Your task to perform on an android device: turn on bluetooth scan Image 0: 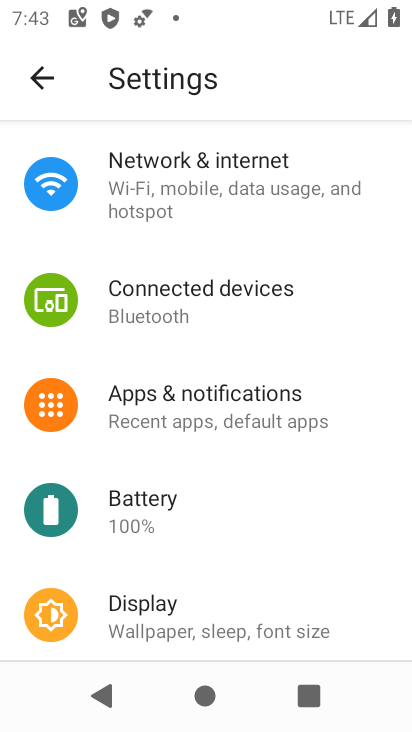
Step 0: press home button
Your task to perform on an android device: turn on bluetooth scan Image 1: 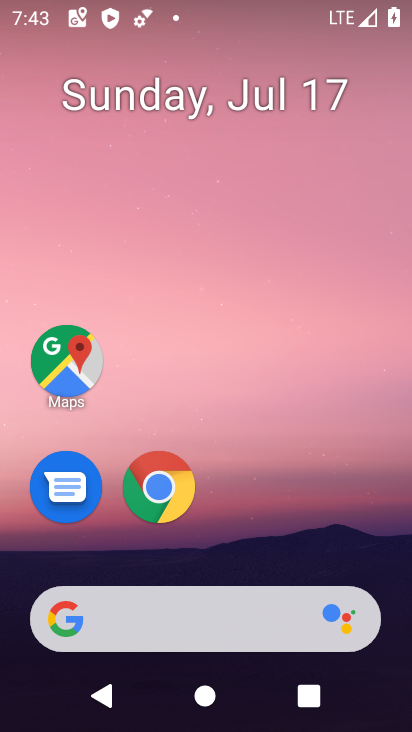
Step 1: drag from (342, 529) to (366, 72)
Your task to perform on an android device: turn on bluetooth scan Image 2: 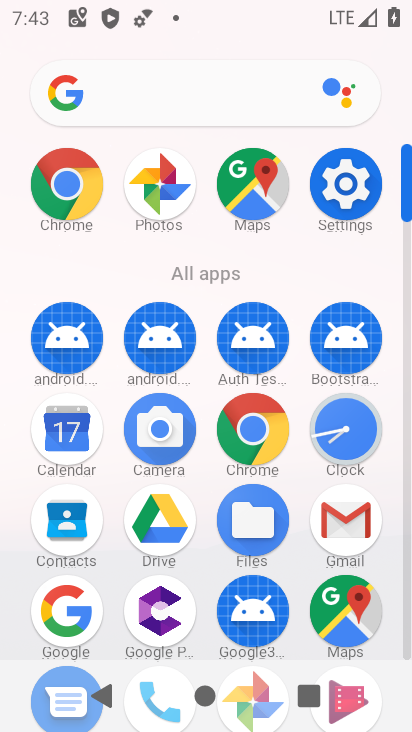
Step 2: click (341, 184)
Your task to perform on an android device: turn on bluetooth scan Image 3: 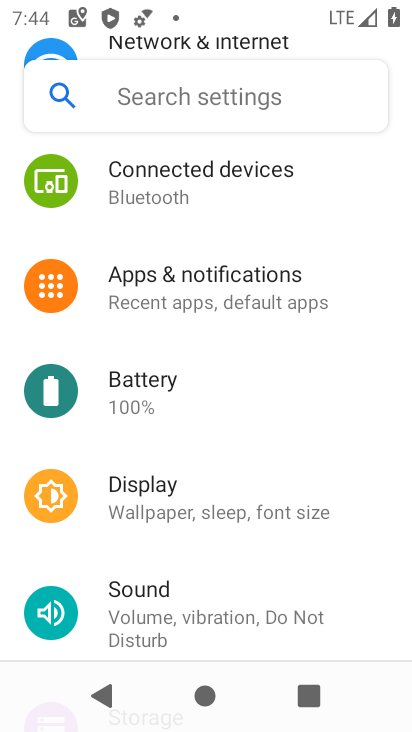
Step 3: drag from (341, 184) to (356, 304)
Your task to perform on an android device: turn on bluetooth scan Image 4: 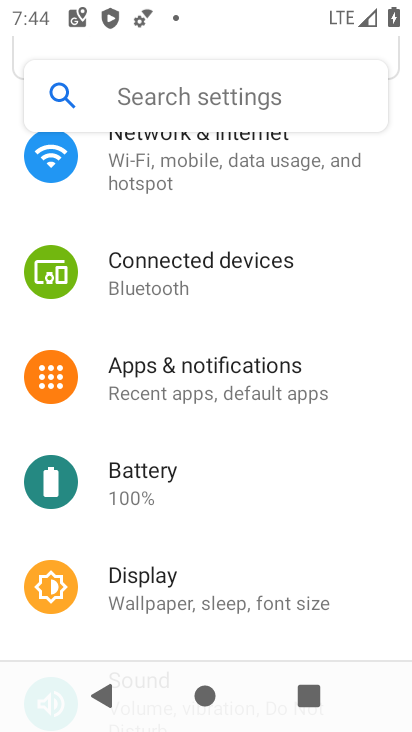
Step 4: drag from (364, 225) to (363, 307)
Your task to perform on an android device: turn on bluetooth scan Image 5: 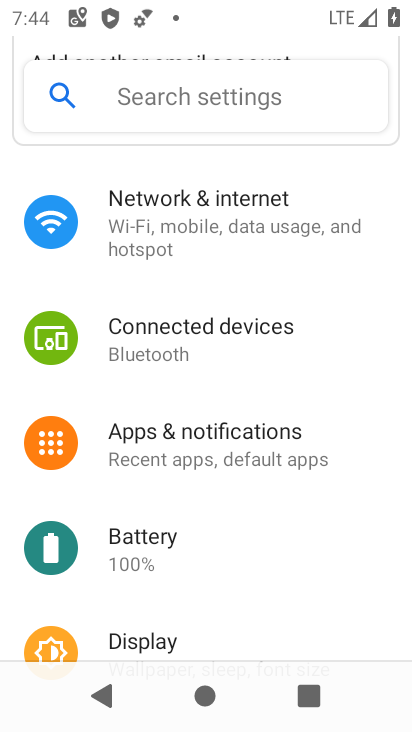
Step 5: drag from (346, 439) to (357, 336)
Your task to perform on an android device: turn on bluetooth scan Image 6: 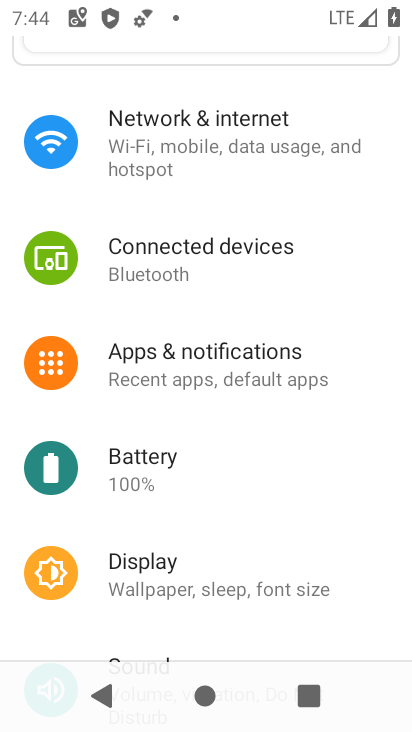
Step 6: drag from (335, 458) to (356, 357)
Your task to perform on an android device: turn on bluetooth scan Image 7: 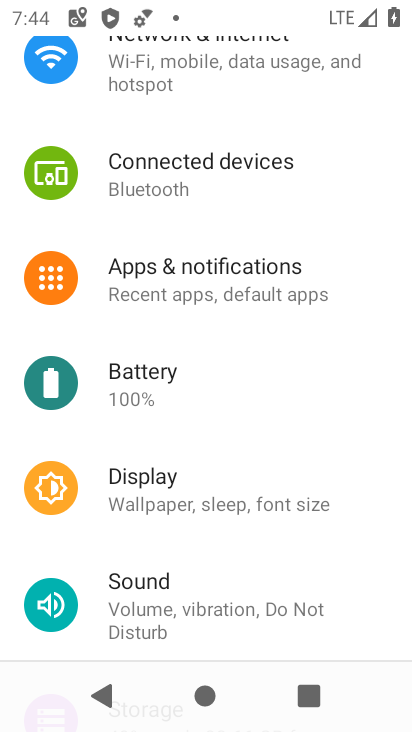
Step 7: drag from (338, 538) to (360, 431)
Your task to perform on an android device: turn on bluetooth scan Image 8: 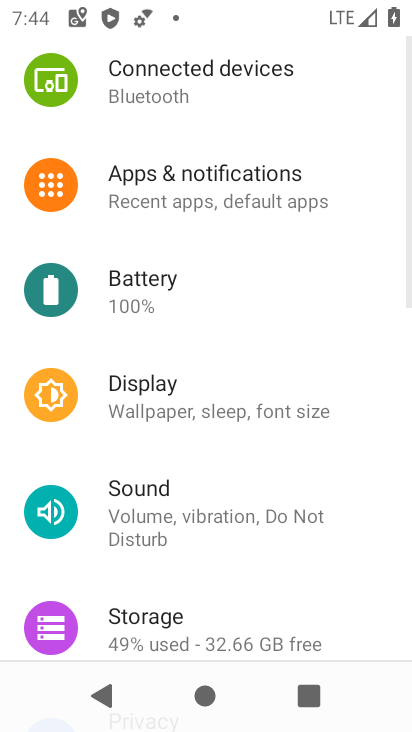
Step 8: drag from (346, 541) to (358, 467)
Your task to perform on an android device: turn on bluetooth scan Image 9: 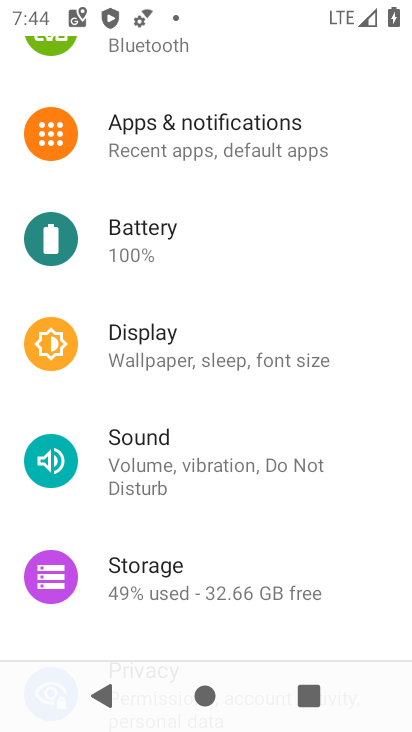
Step 9: drag from (347, 599) to (358, 498)
Your task to perform on an android device: turn on bluetooth scan Image 10: 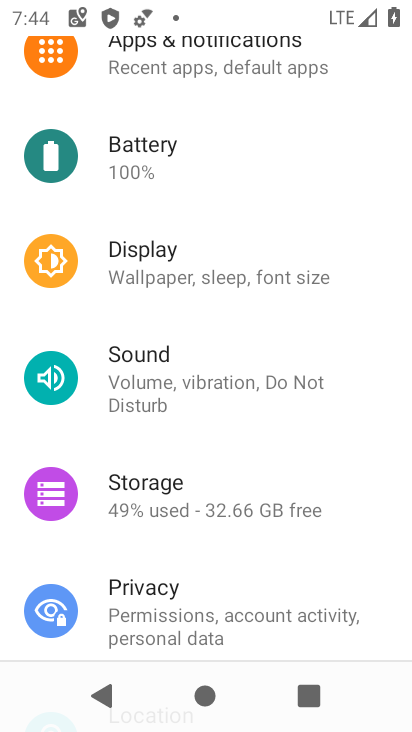
Step 10: drag from (350, 587) to (355, 497)
Your task to perform on an android device: turn on bluetooth scan Image 11: 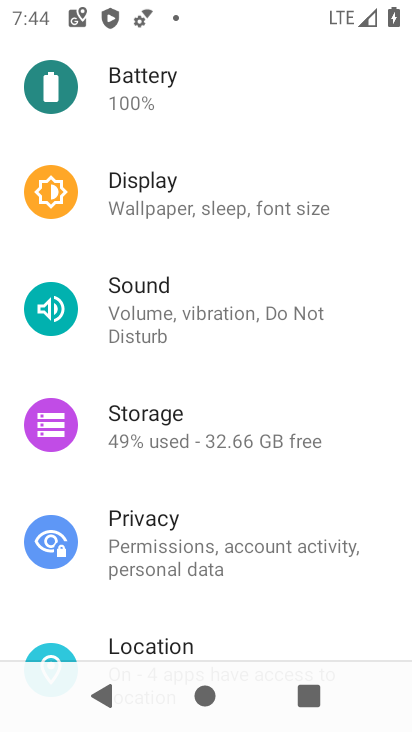
Step 11: drag from (360, 602) to (381, 476)
Your task to perform on an android device: turn on bluetooth scan Image 12: 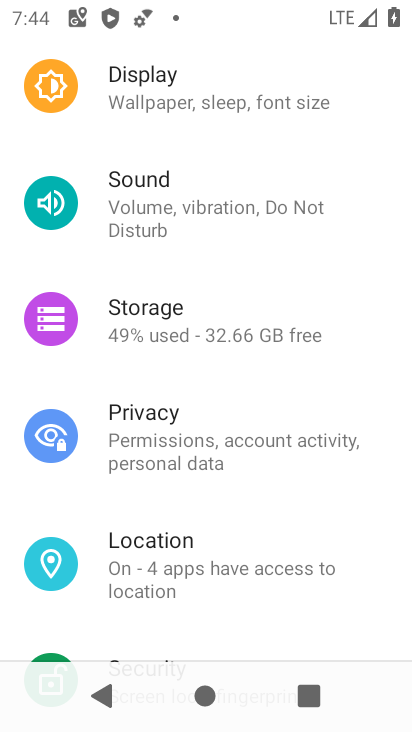
Step 12: drag from (354, 609) to (390, 464)
Your task to perform on an android device: turn on bluetooth scan Image 13: 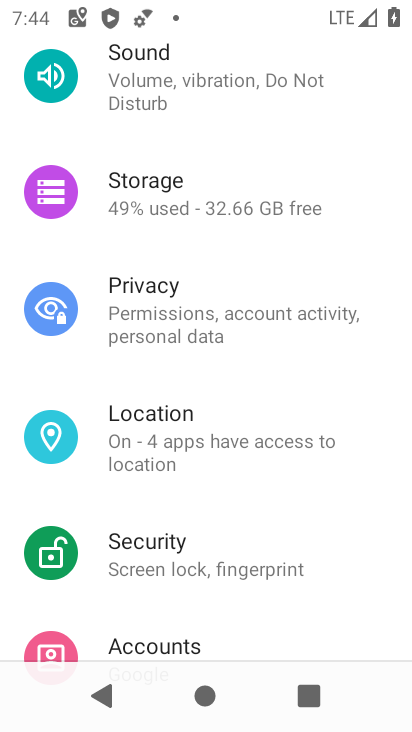
Step 13: click (292, 441)
Your task to perform on an android device: turn on bluetooth scan Image 14: 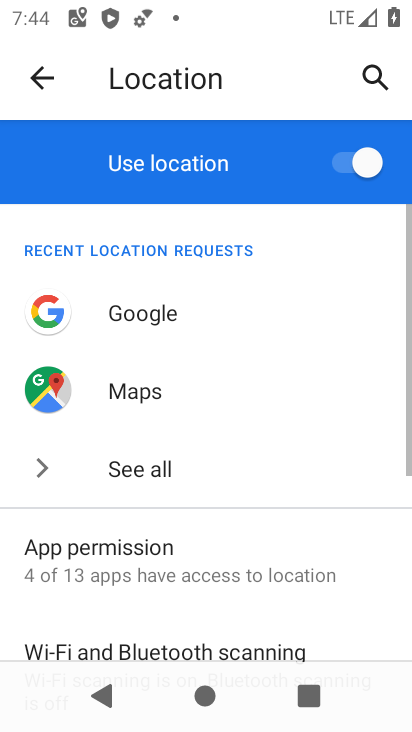
Step 14: drag from (276, 538) to (298, 423)
Your task to perform on an android device: turn on bluetooth scan Image 15: 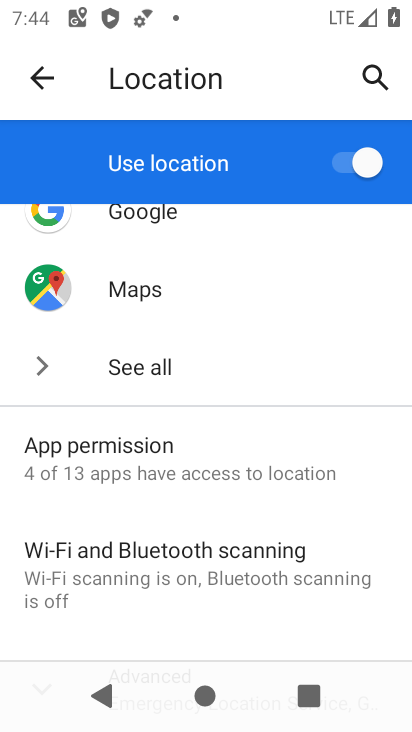
Step 15: drag from (361, 532) to (369, 383)
Your task to perform on an android device: turn on bluetooth scan Image 16: 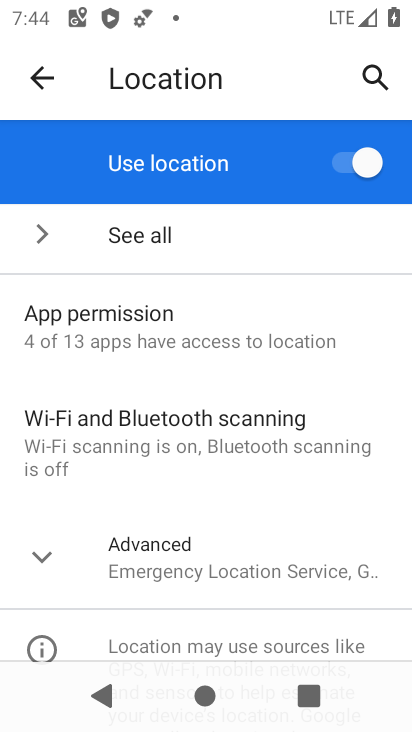
Step 16: click (304, 433)
Your task to perform on an android device: turn on bluetooth scan Image 17: 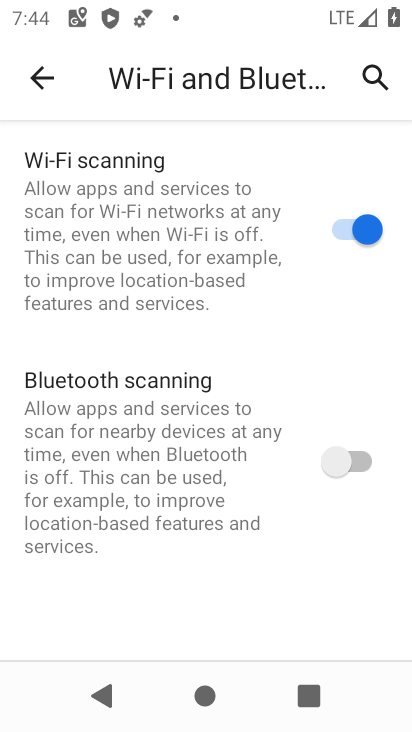
Step 17: click (330, 471)
Your task to perform on an android device: turn on bluetooth scan Image 18: 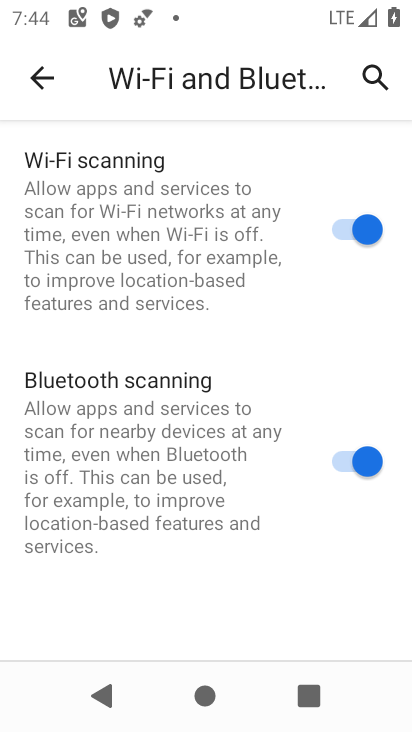
Step 18: task complete